Your task to perform on an android device: Open calendar and show me the second week of next month Image 0: 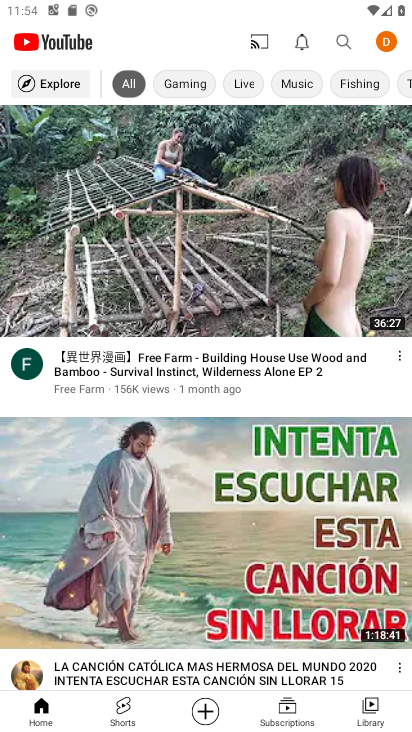
Step 0: press home button
Your task to perform on an android device: Open calendar and show me the second week of next month Image 1: 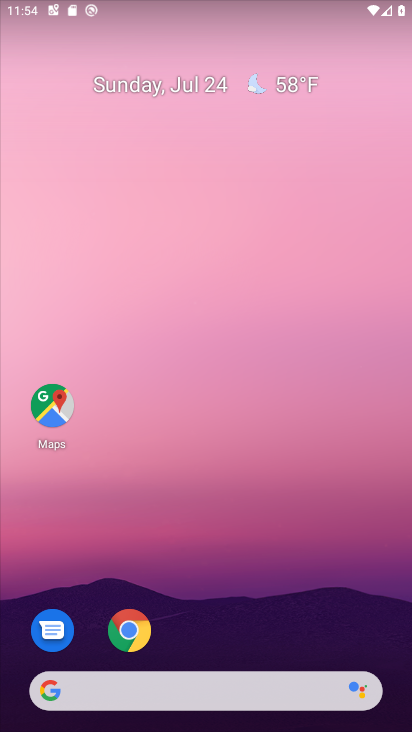
Step 1: drag from (172, 528) to (162, 221)
Your task to perform on an android device: Open calendar and show me the second week of next month Image 2: 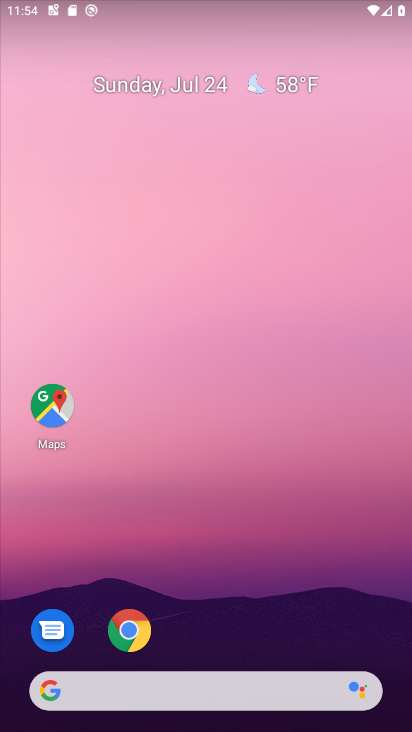
Step 2: drag from (186, 539) to (184, 83)
Your task to perform on an android device: Open calendar and show me the second week of next month Image 3: 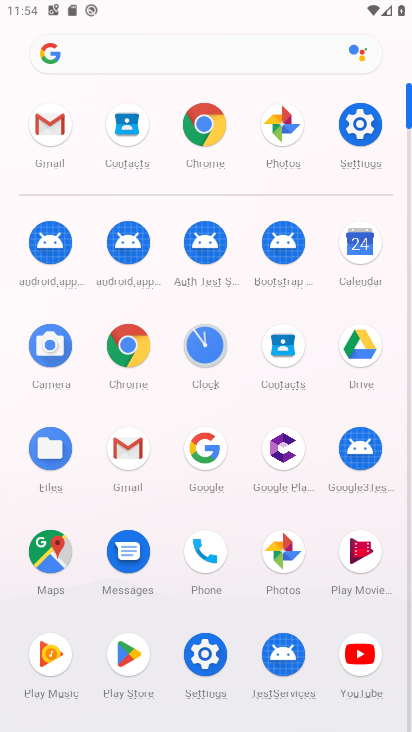
Step 3: click (346, 258)
Your task to perform on an android device: Open calendar and show me the second week of next month Image 4: 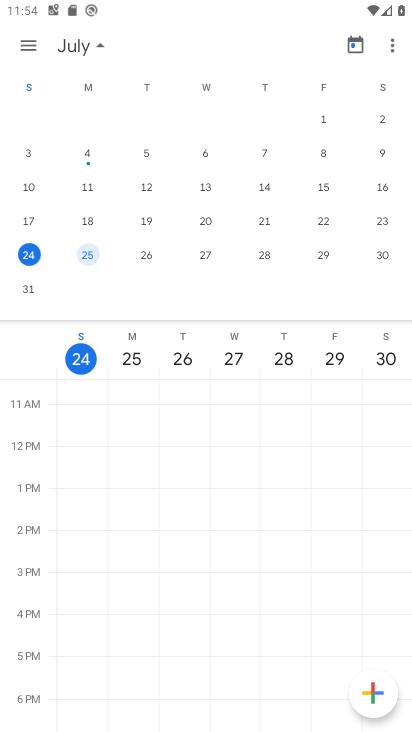
Step 4: drag from (371, 210) to (2, 209)
Your task to perform on an android device: Open calendar and show me the second week of next month Image 5: 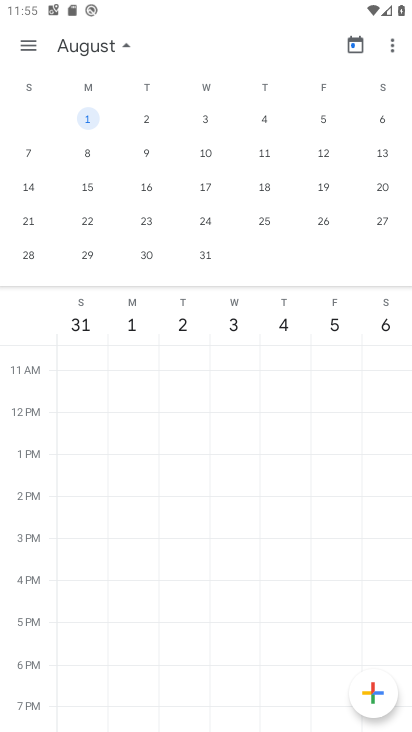
Step 5: drag from (196, 183) to (10, 207)
Your task to perform on an android device: Open calendar and show me the second week of next month Image 6: 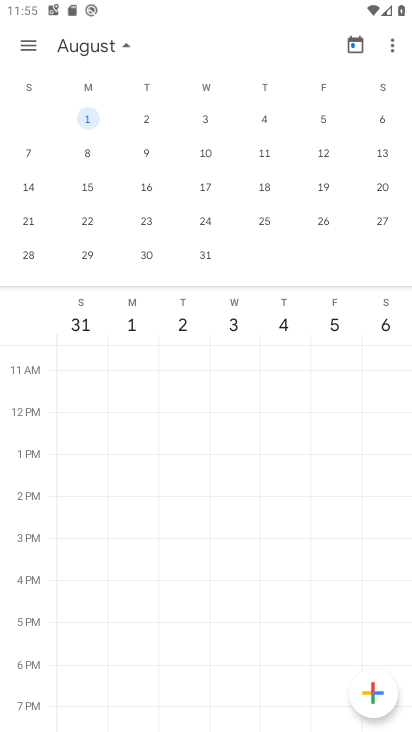
Step 6: click (37, 148)
Your task to perform on an android device: Open calendar and show me the second week of next month Image 7: 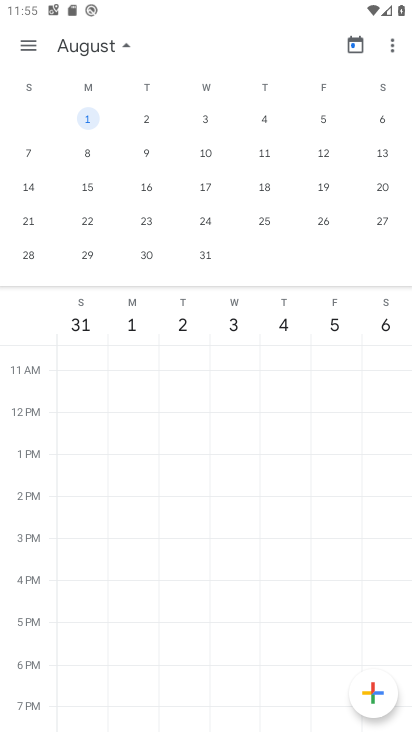
Step 7: click (37, 148)
Your task to perform on an android device: Open calendar and show me the second week of next month Image 8: 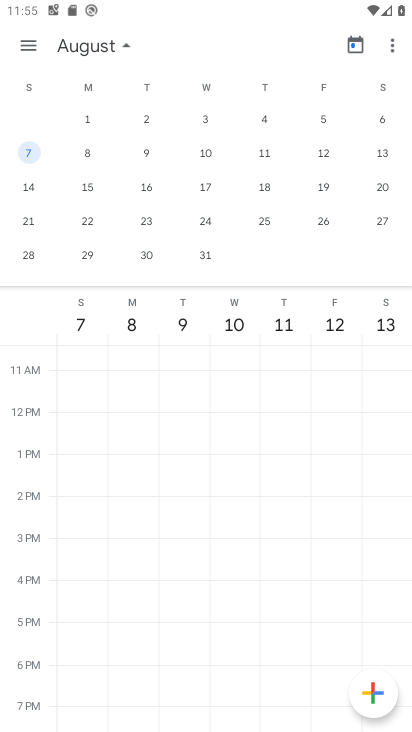
Step 8: task complete